Your task to perform on an android device: remove spam from my inbox in the gmail app Image 0: 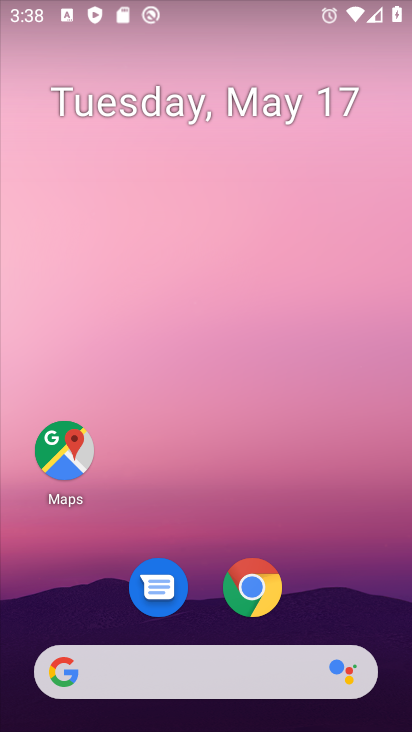
Step 0: drag from (215, 610) to (323, 156)
Your task to perform on an android device: remove spam from my inbox in the gmail app Image 1: 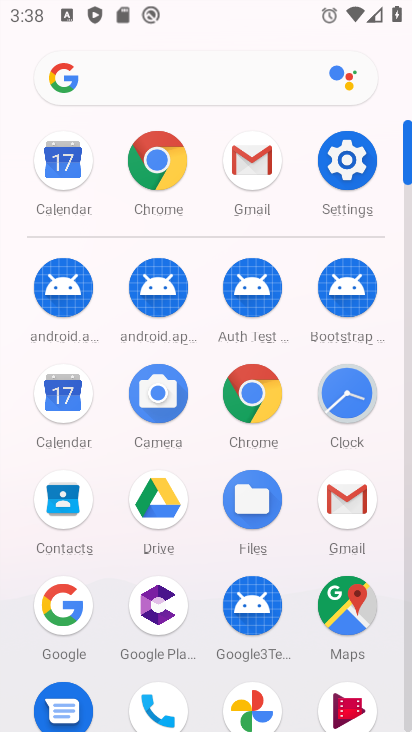
Step 1: click (350, 504)
Your task to perform on an android device: remove spam from my inbox in the gmail app Image 2: 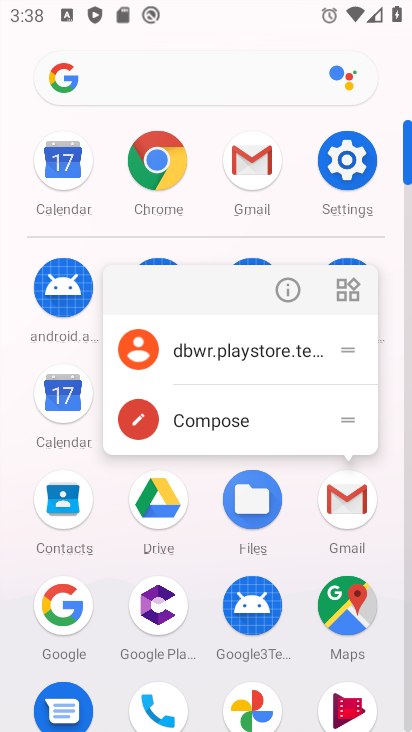
Step 2: click (281, 297)
Your task to perform on an android device: remove spam from my inbox in the gmail app Image 3: 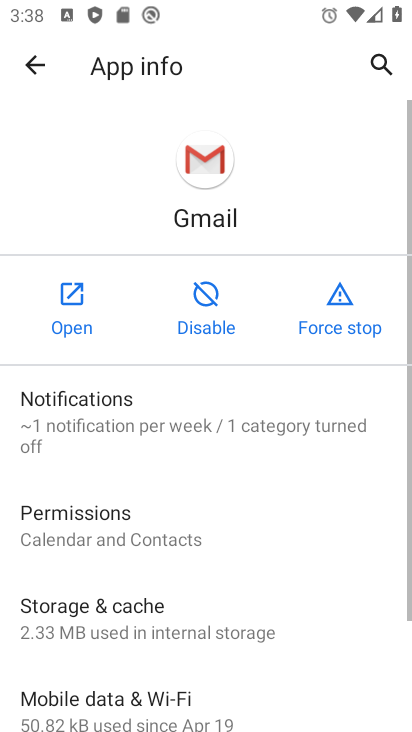
Step 3: click (35, 299)
Your task to perform on an android device: remove spam from my inbox in the gmail app Image 4: 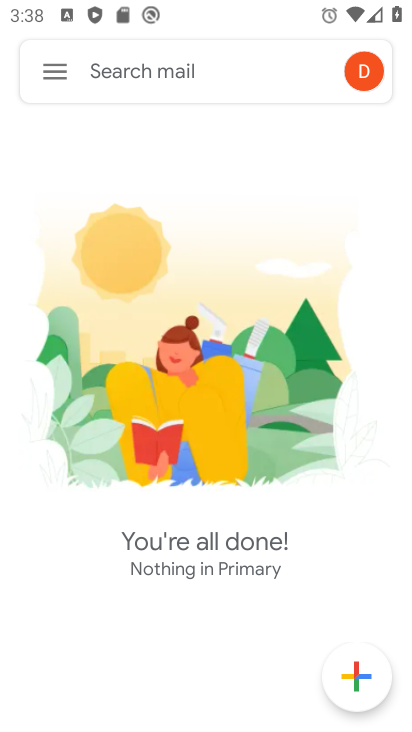
Step 4: drag from (214, 636) to (243, 389)
Your task to perform on an android device: remove spam from my inbox in the gmail app Image 5: 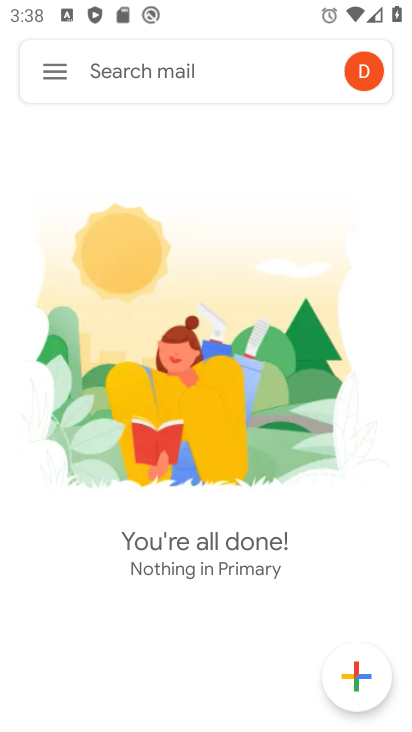
Step 5: click (44, 76)
Your task to perform on an android device: remove spam from my inbox in the gmail app Image 6: 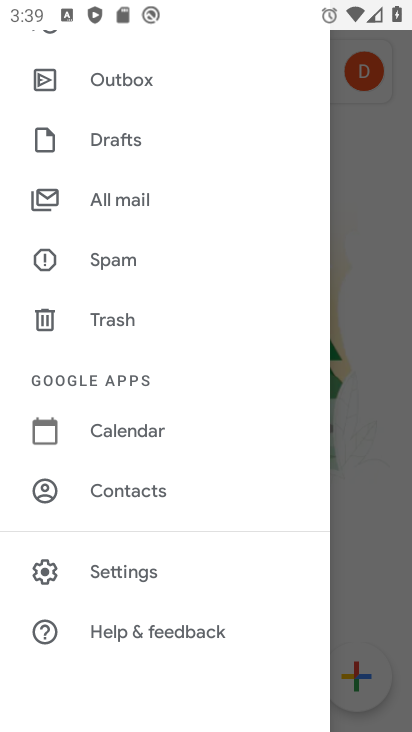
Step 6: drag from (168, 623) to (205, 276)
Your task to perform on an android device: remove spam from my inbox in the gmail app Image 7: 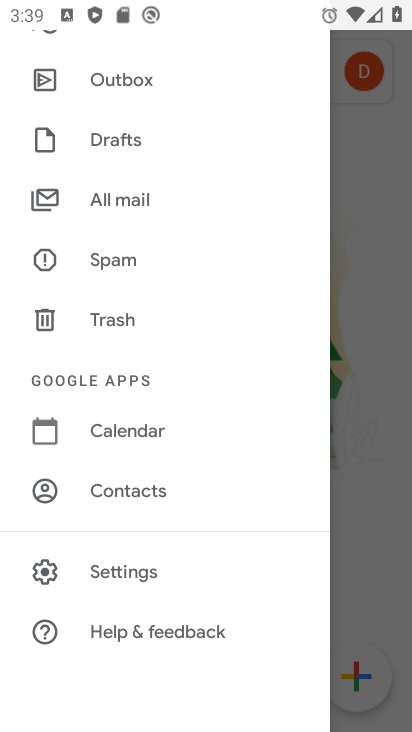
Step 7: drag from (176, 254) to (300, 711)
Your task to perform on an android device: remove spam from my inbox in the gmail app Image 8: 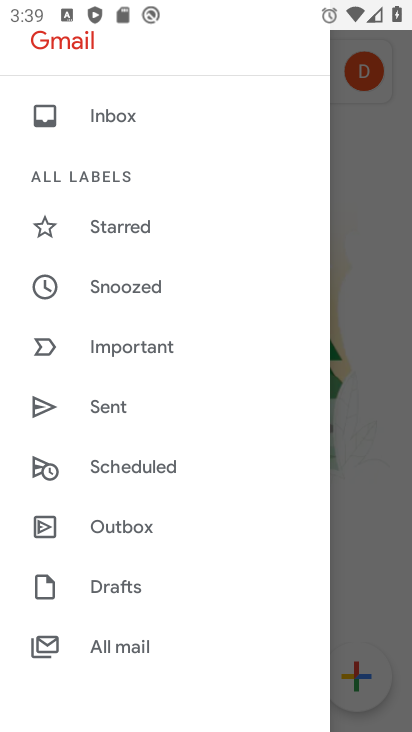
Step 8: drag from (199, 502) to (266, 136)
Your task to perform on an android device: remove spam from my inbox in the gmail app Image 9: 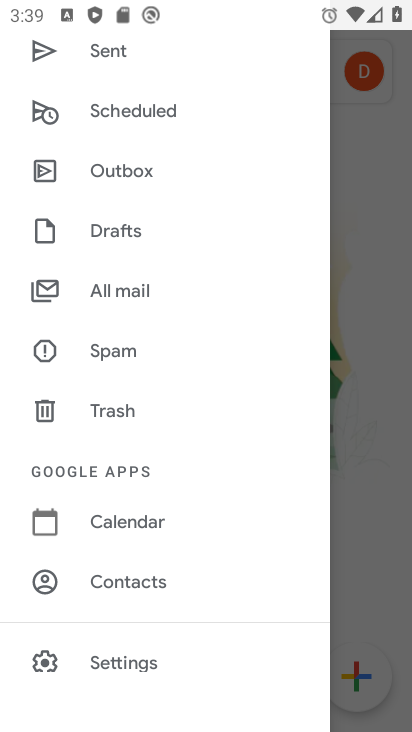
Step 9: click (114, 360)
Your task to perform on an android device: remove spam from my inbox in the gmail app Image 10: 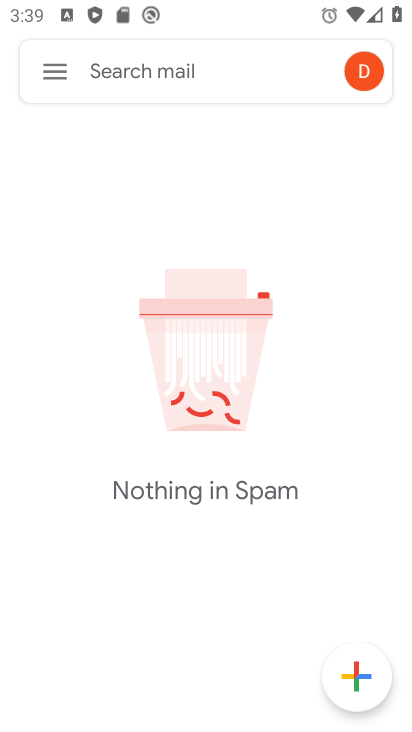
Step 10: task complete